Your task to perform on an android device: Open the calendar and show me this week's events? Image 0: 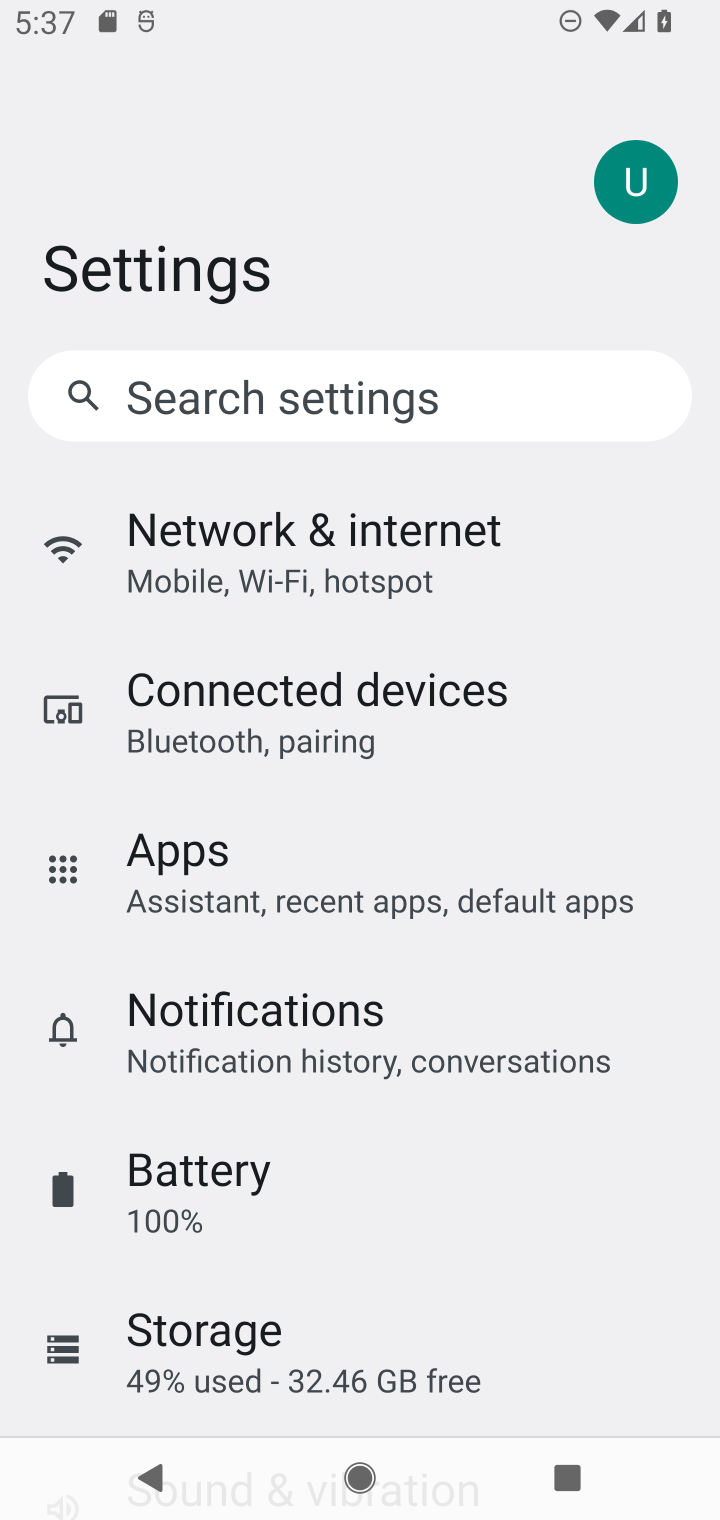
Step 0: press home button
Your task to perform on an android device: Open the calendar and show me this week's events? Image 1: 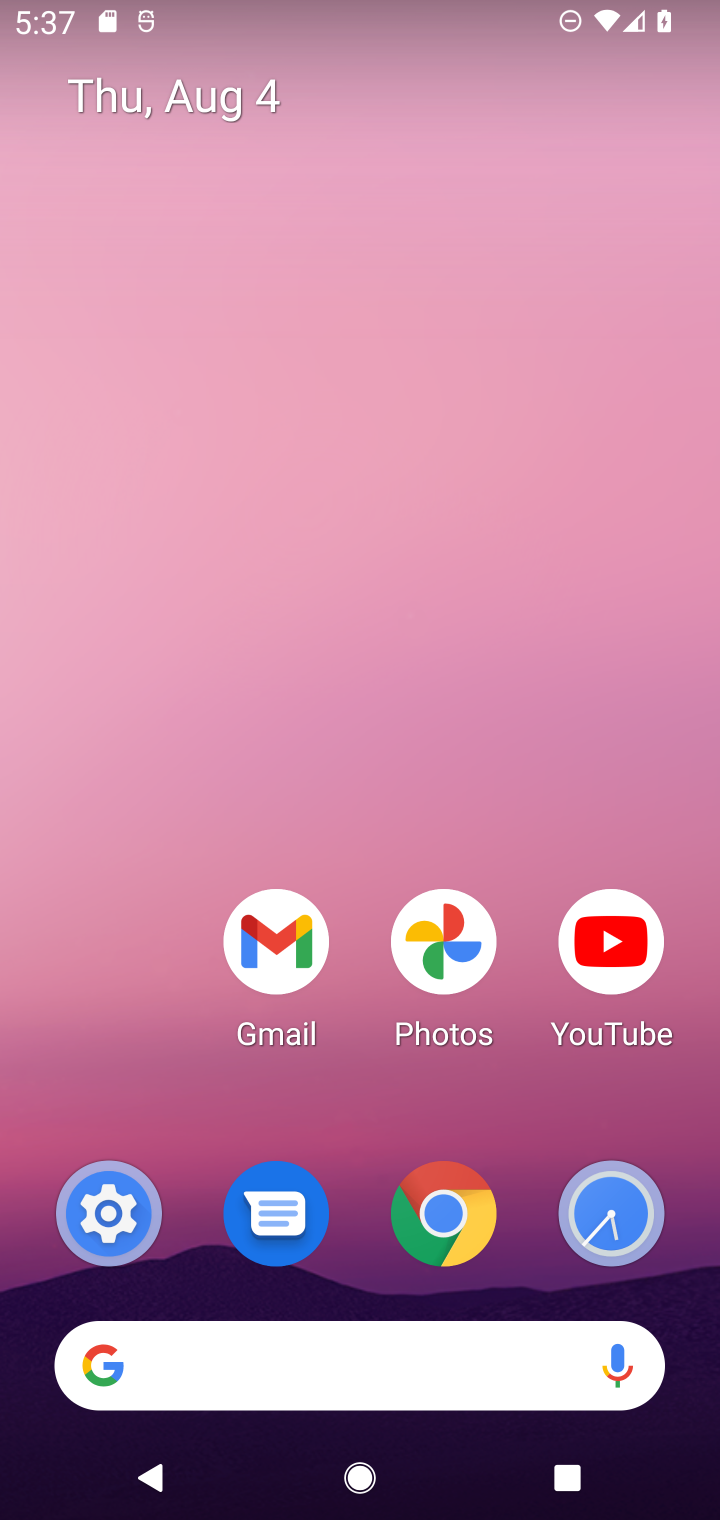
Step 1: drag from (151, 1014) to (254, 246)
Your task to perform on an android device: Open the calendar and show me this week's events? Image 2: 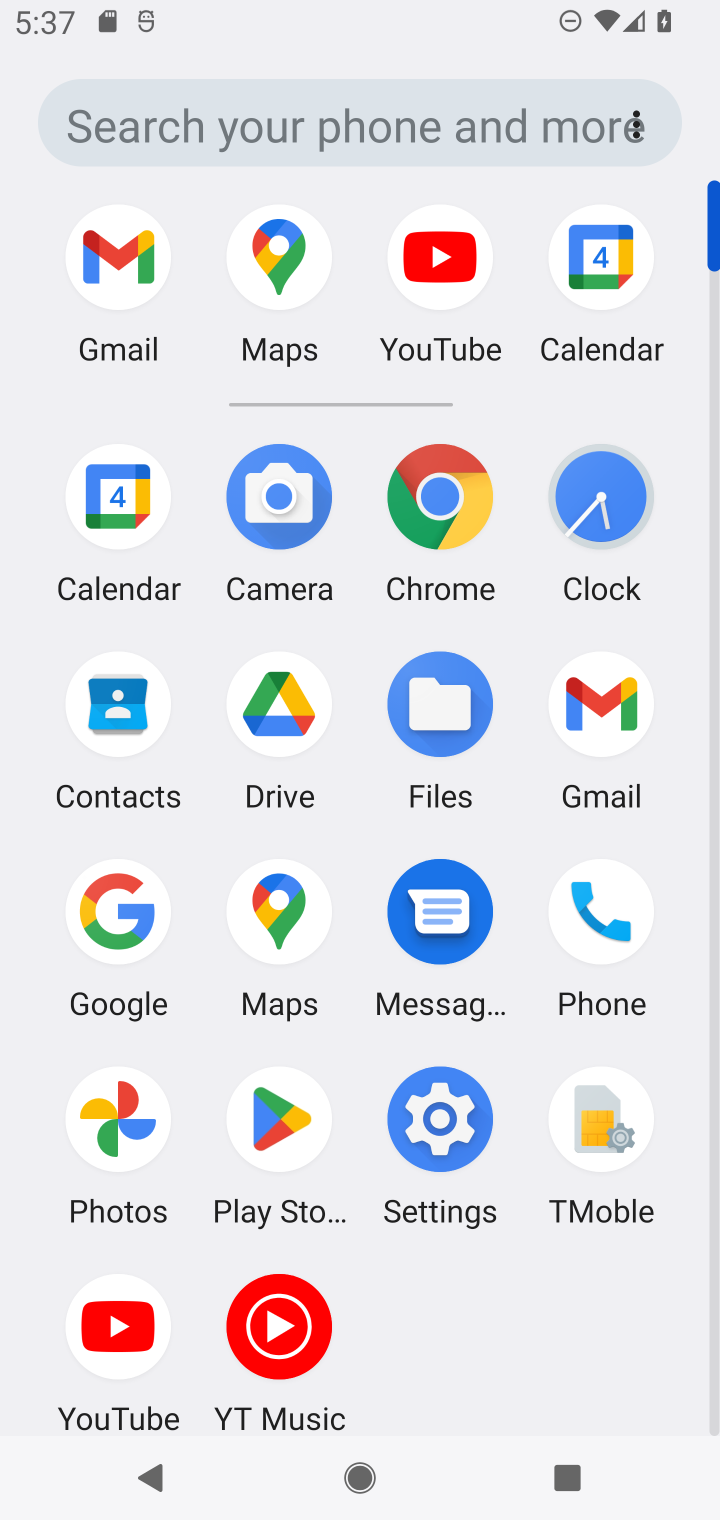
Step 2: click (106, 526)
Your task to perform on an android device: Open the calendar and show me this week's events? Image 3: 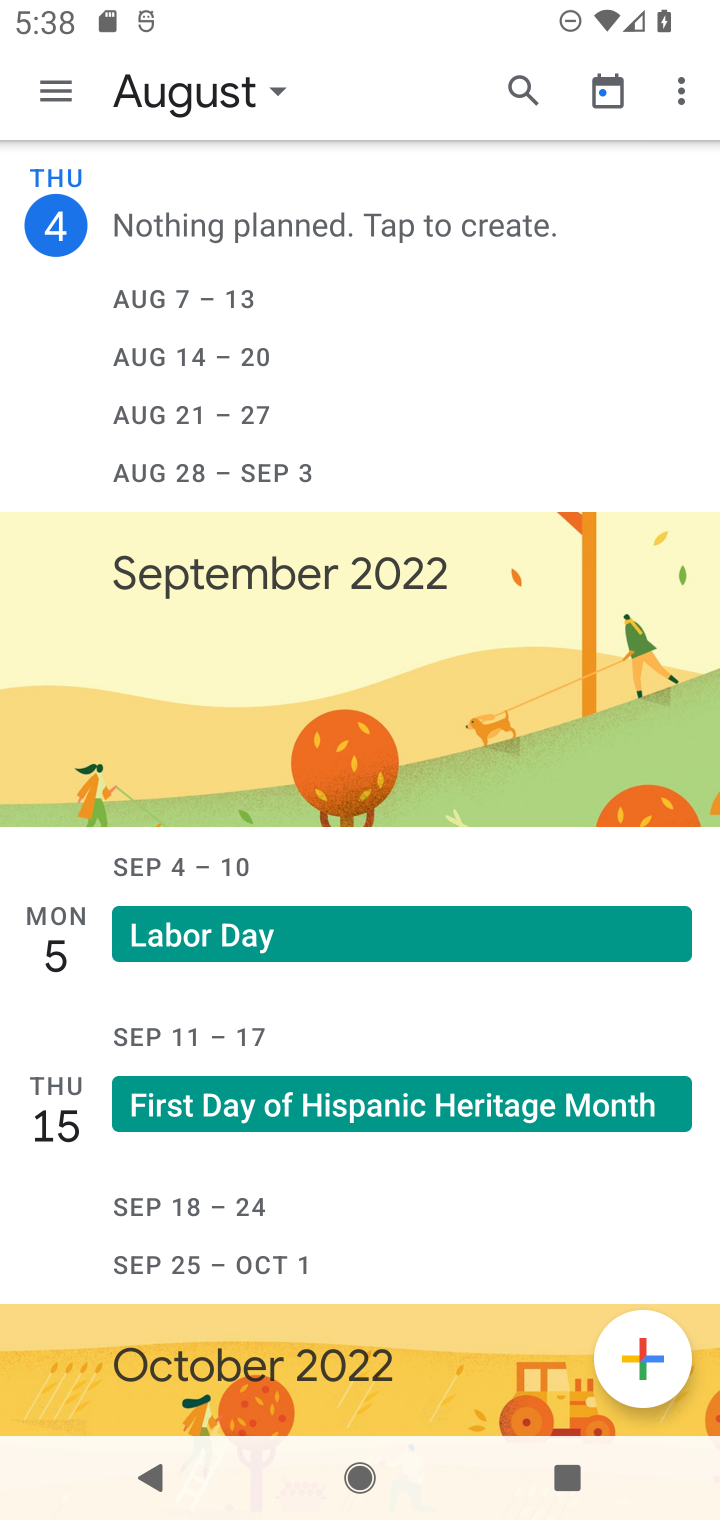
Step 3: task complete